Your task to perform on an android device: Show me popular games on the Play Store Image 0: 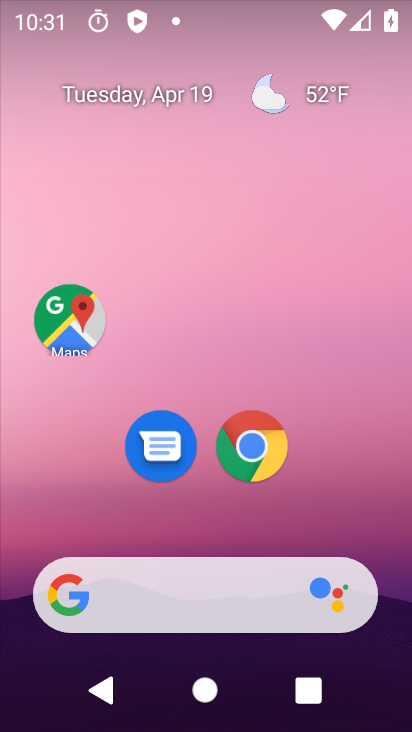
Step 0: drag from (383, 567) to (359, 159)
Your task to perform on an android device: Show me popular games on the Play Store Image 1: 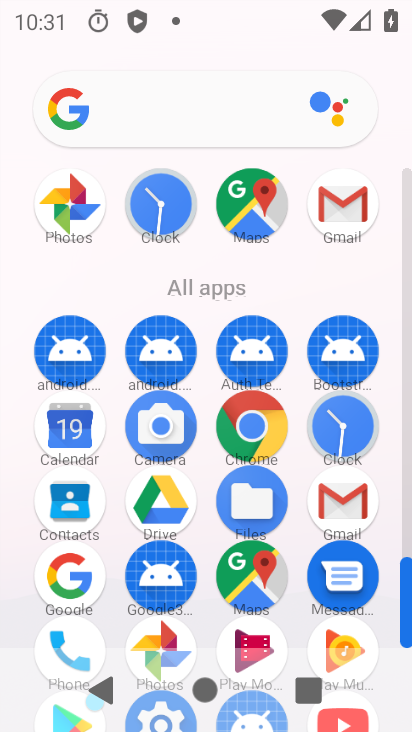
Step 1: drag from (207, 622) to (205, 313)
Your task to perform on an android device: Show me popular games on the Play Store Image 2: 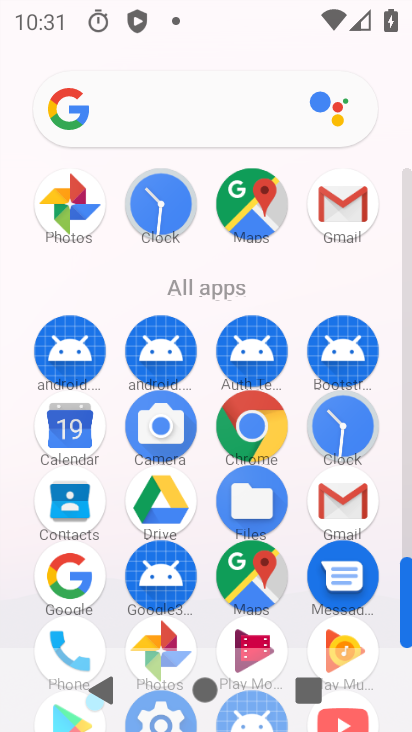
Step 2: drag from (404, 604) to (409, 357)
Your task to perform on an android device: Show me popular games on the Play Store Image 3: 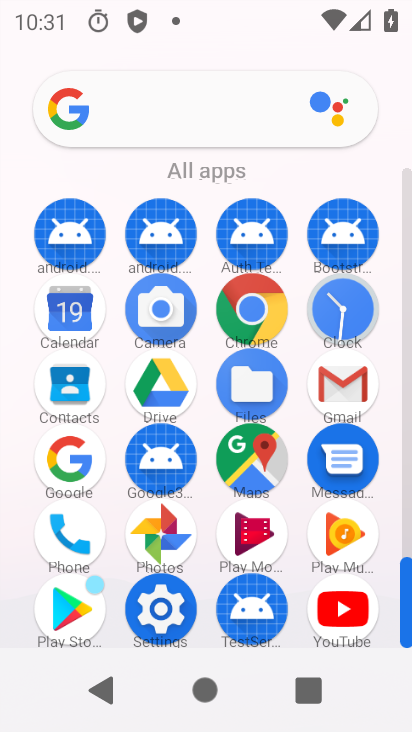
Step 3: click (69, 603)
Your task to perform on an android device: Show me popular games on the Play Store Image 4: 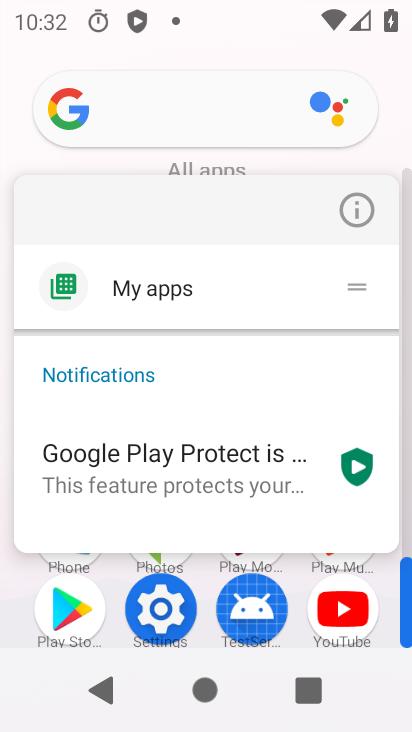
Step 4: click (196, 118)
Your task to perform on an android device: Show me popular games on the Play Store Image 5: 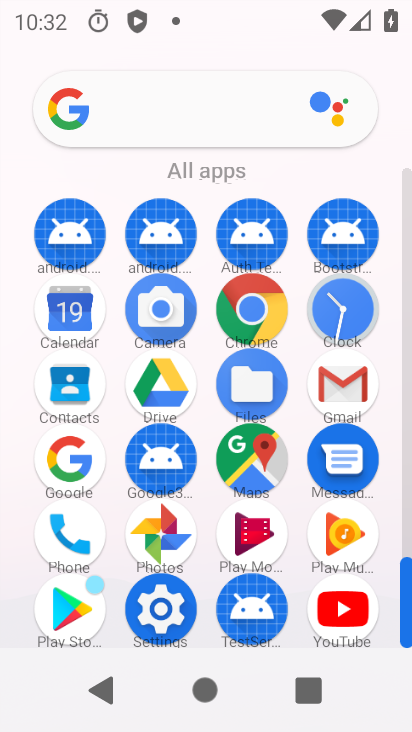
Step 5: click (79, 609)
Your task to perform on an android device: Show me popular games on the Play Store Image 6: 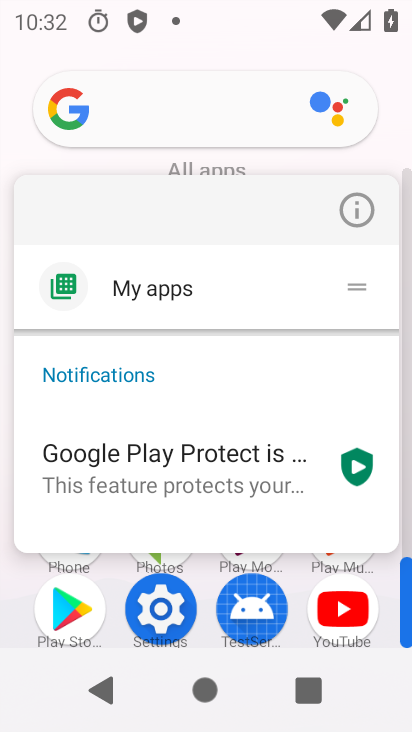
Step 6: click (67, 614)
Your task to perform on an android device: Show me popular games on the Play Store Image 7: 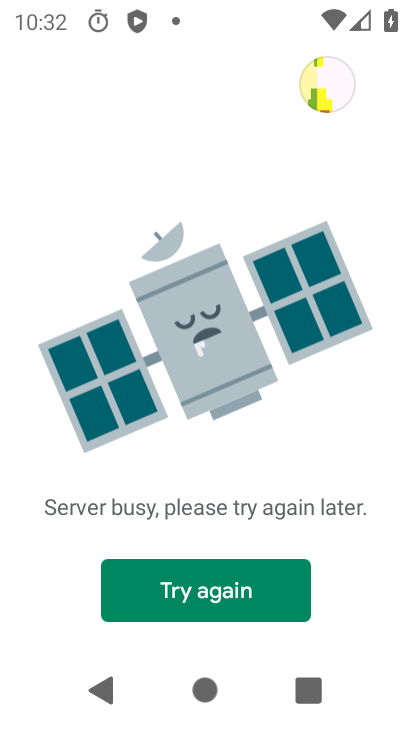
Step 7: click (268, 584)
Your task to perform on an android device: Show me popular games on the Play Store Image 8: 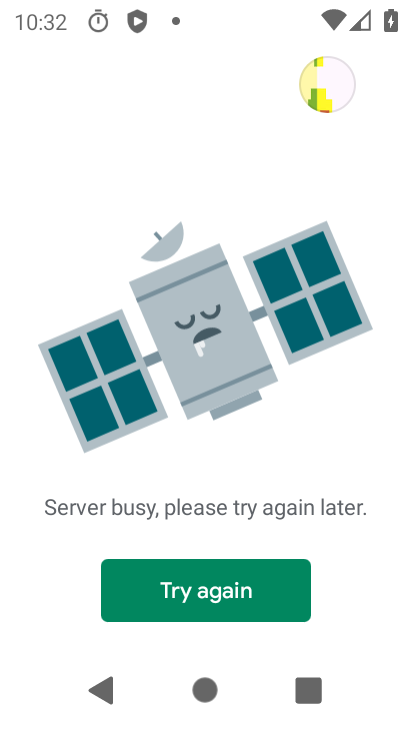
Step 8: click (268, 584)
Your task to perform on an android device: Show me popular games on the Play Store Image 9: 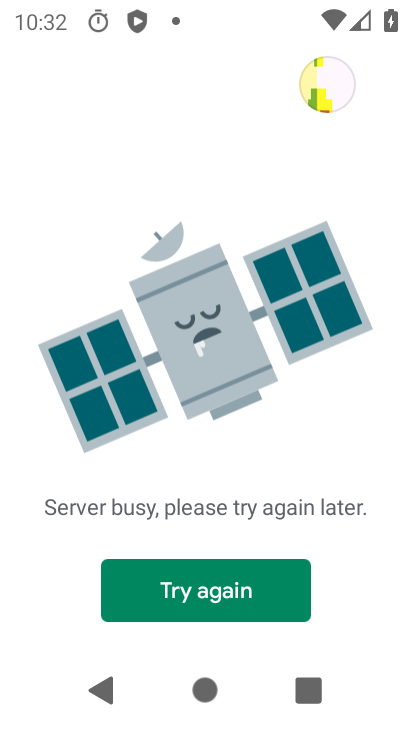
Step 9: task complete